Your task to perform on an android device: Show me popular games on the Play Store Image 0: 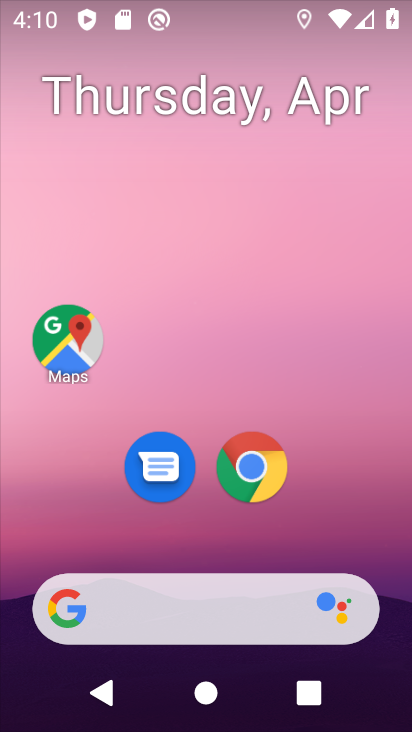
Step 0: drag from (204, 538) to (276, 28)
Your task to perform on an android device: Show me popular games on the Play Store Image 1: 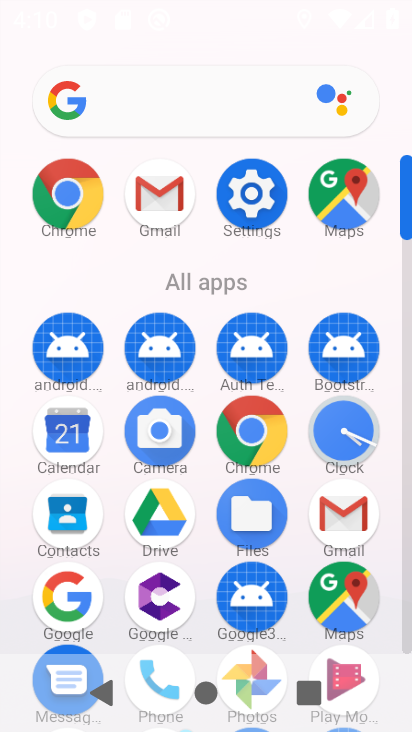
Step 1: drag from (200, 549) to (250, 334)
Your task to perform on an android device: Show me popular games on the Play Store Image 2: 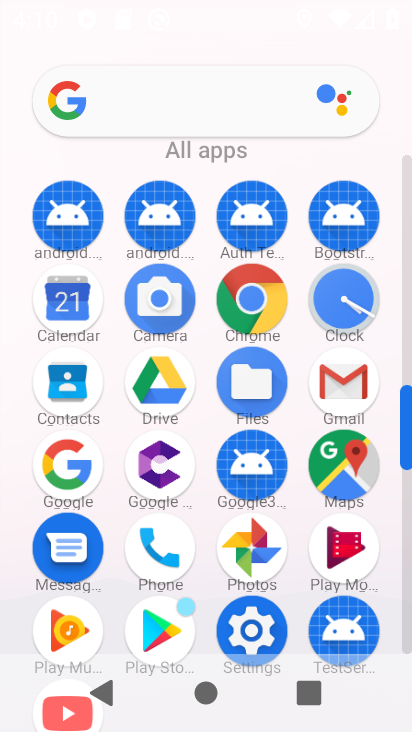
Step 2: click (164, 630)
Your task to perform on an android device: Show me popular games on the Play Store Image 3: 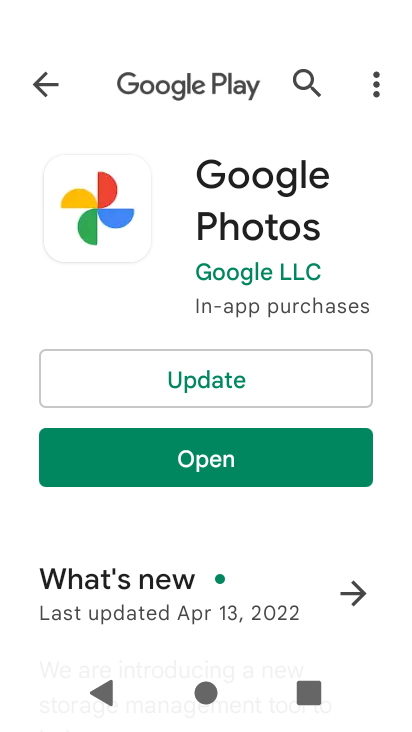
Step 3: click (56, 77)
Your task to perform on an android device: Show me popular games on the Play Store Image 4: 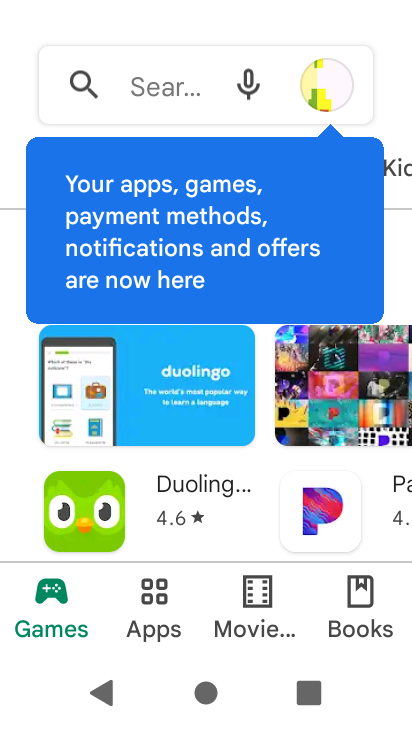
Step 4: click (404, 242)
Your task to perform on an android device: Show me popular games on the Play Store Image 5: 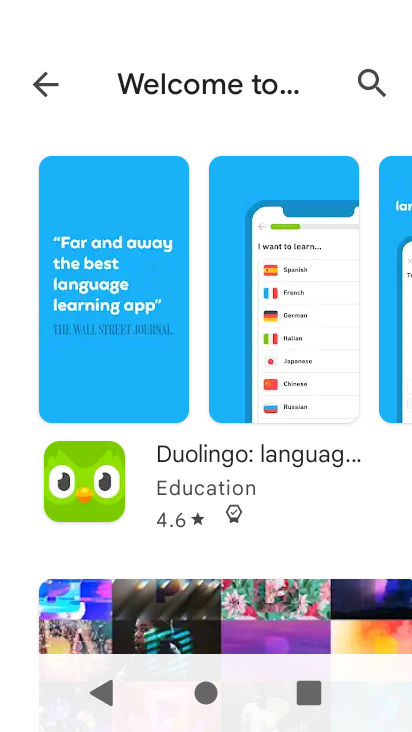
Step 5: click (35, 84)
Your task to perform on an android device: Show me popular games on the Play Store Image 6: 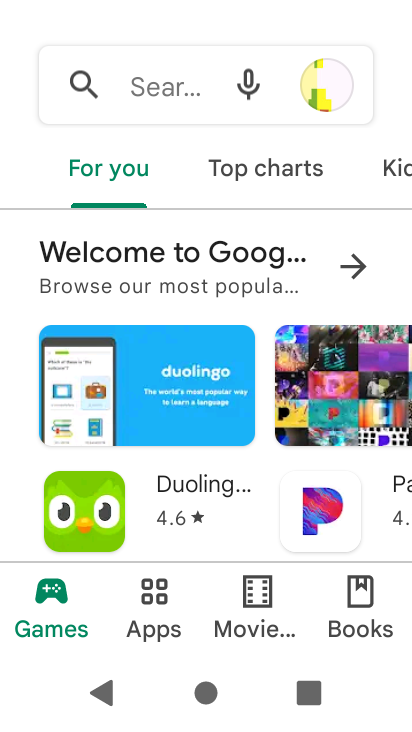
Step 6: drag from (310, 178) to (0, 161)
Your task to perform on an android device: Show me popular games on the Play Store Image 7: 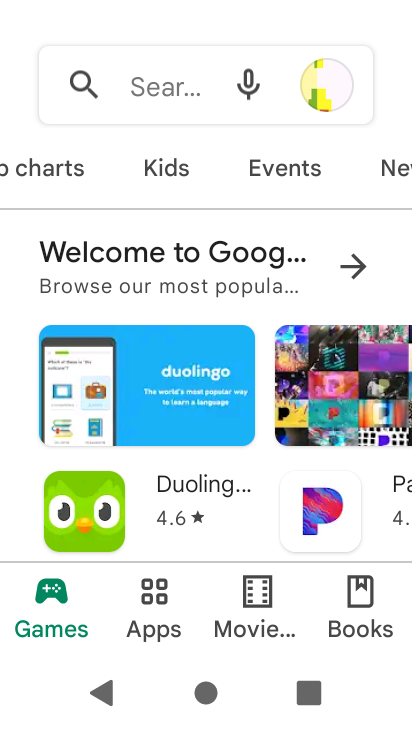
Step 7: drag from (317, 182) to (0, 158)
Your task to perform on an android device: Show me popular games on the Play Store Image 8: 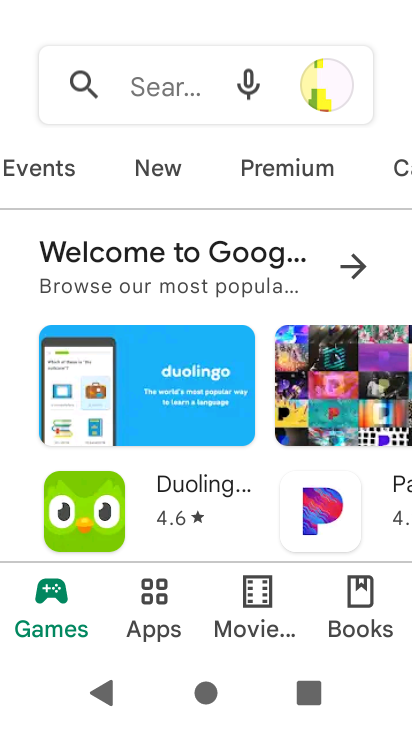
Step 8: drag from (348, 167) to (51, 170)
Your task to perform on an android device: Show me popular games on the Play Store Image 9: 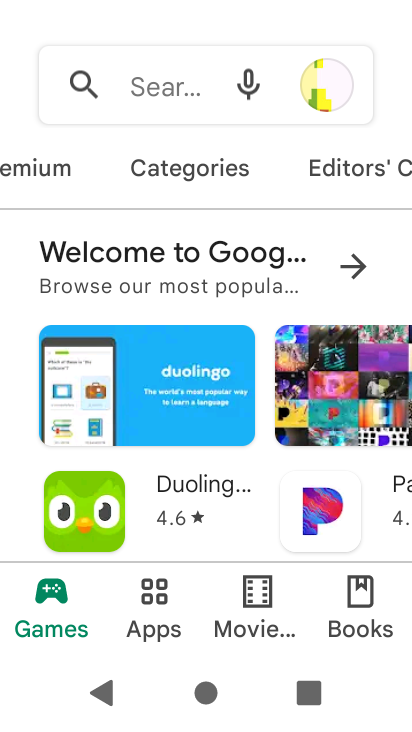
Step 9: click (153, 169)
Your task to perform on an android device: Show me popular games on the Play Store Image 10: 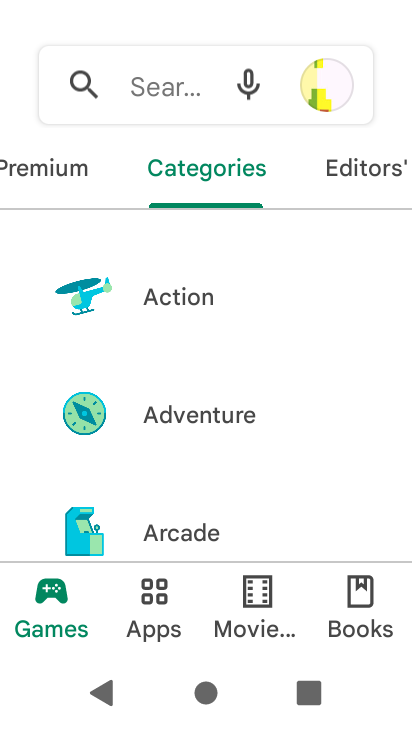
Step 10: task complete